Your task to perform on an android device: see sites visited before in the chrome app Image 0: 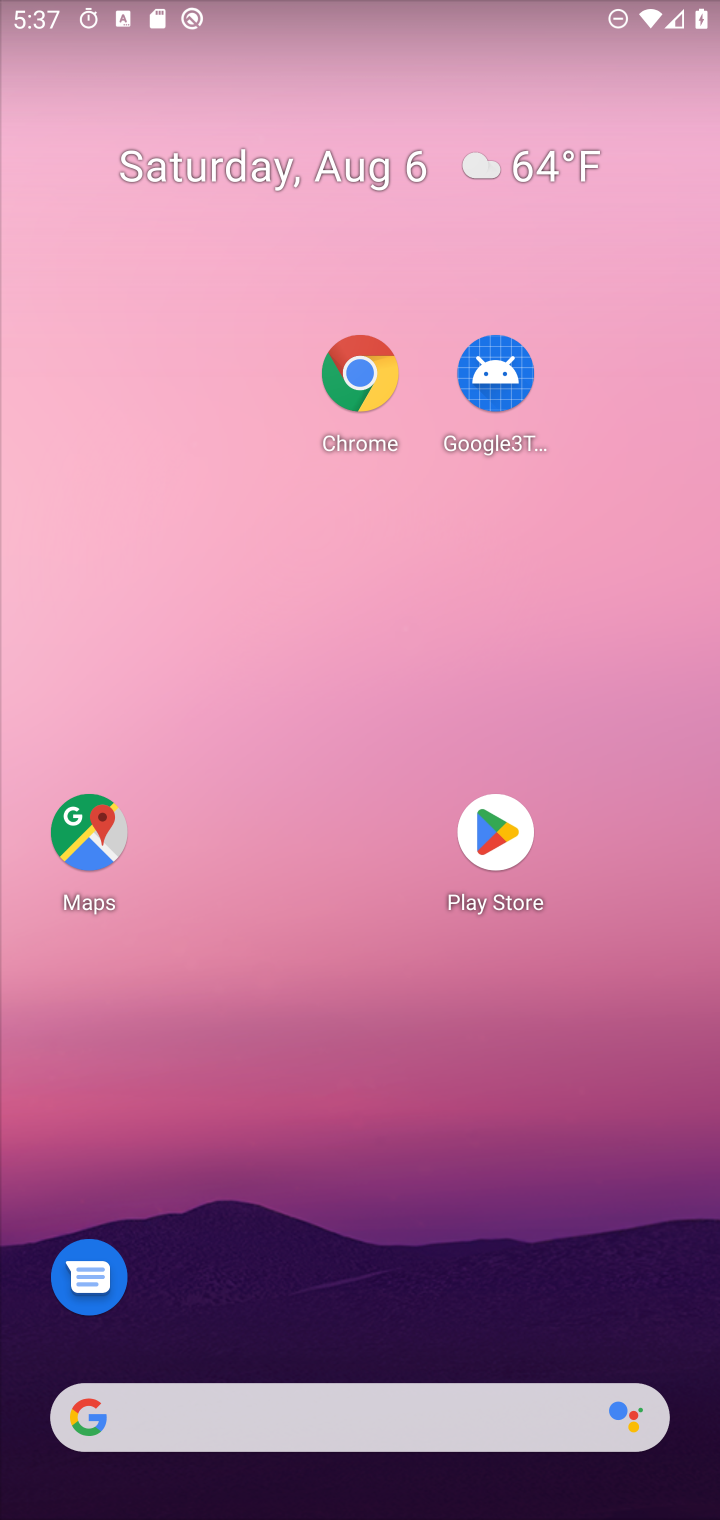
Step 0: drag from (407, 1416) to (317, 273)
Your task to perform on an android device: see sites visited before in the chrome app Image 1: 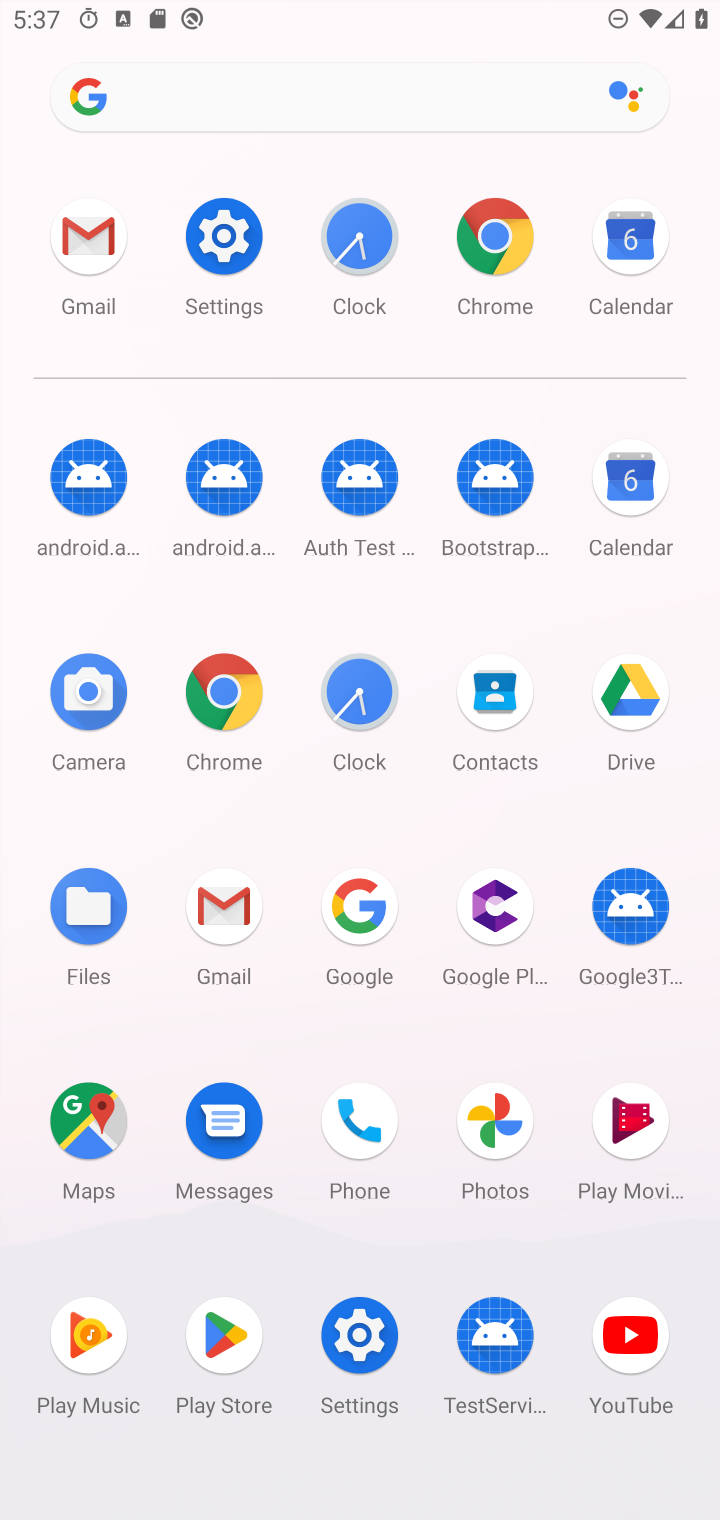
Step 1: click (216, 693)
Your task to perform on an android device: see sites visited before in the chrome app Image 2: 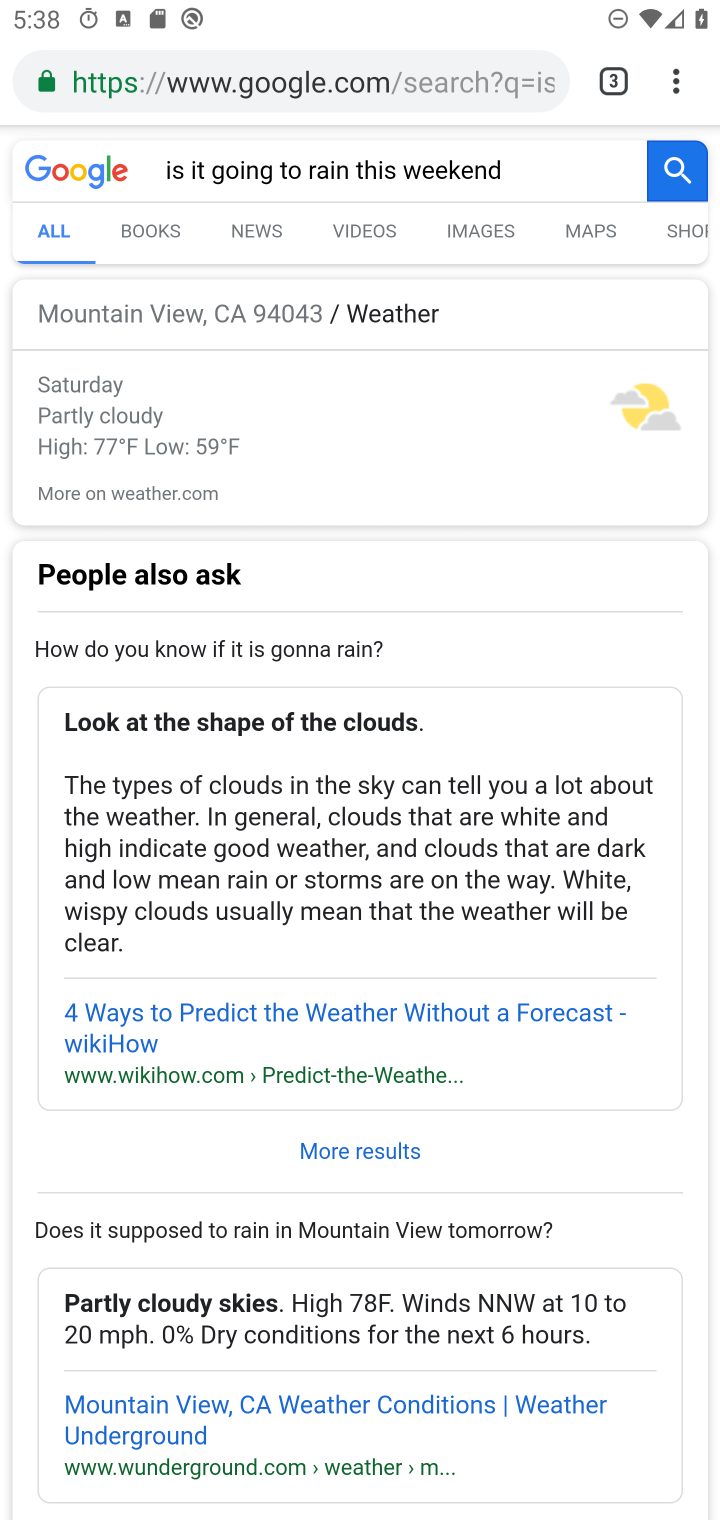
Step 2: click (670, 72)
Your task to perform on an android device: see sites visited before in the chrome app Image 3: 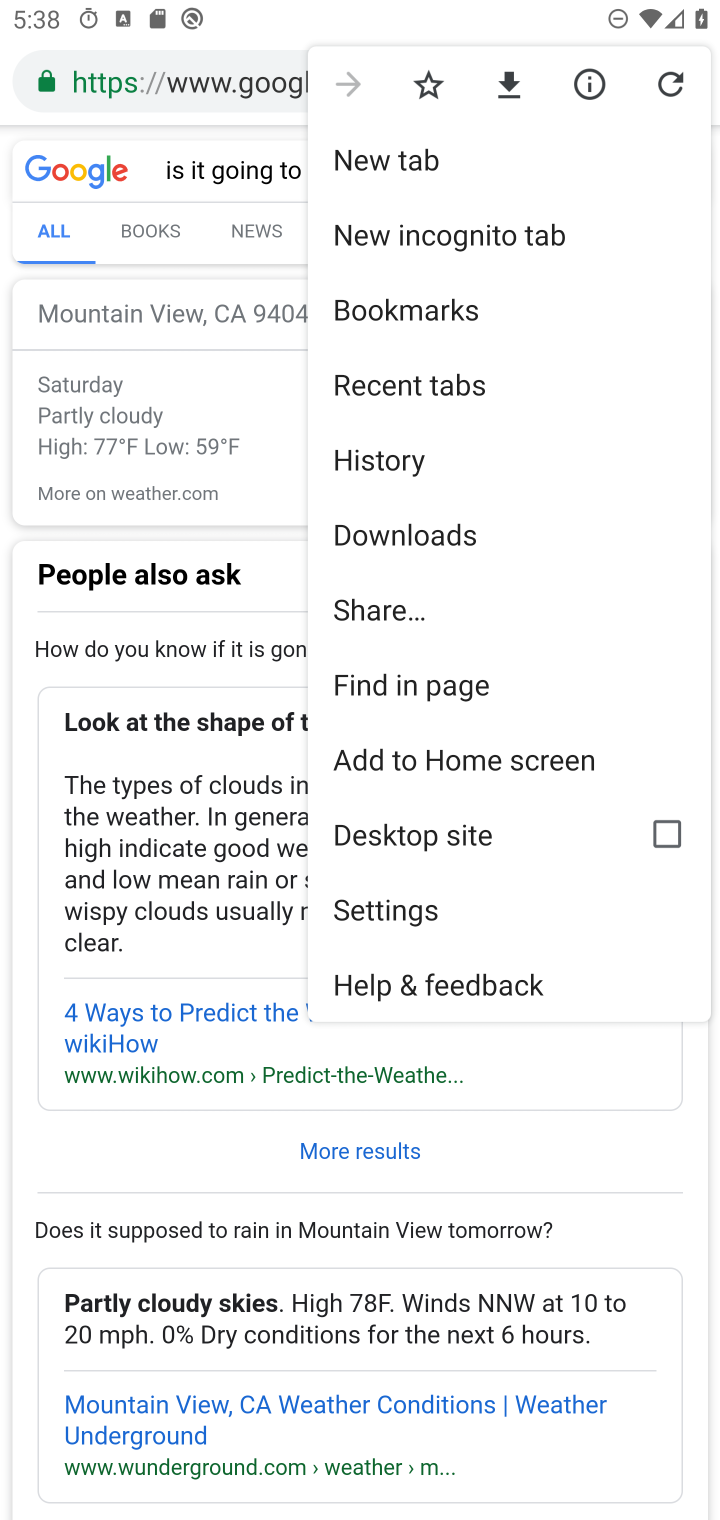
Step 3: click (431, 384)
Your task to perform on an android device: see sites visited before in the chrome app Image 4: 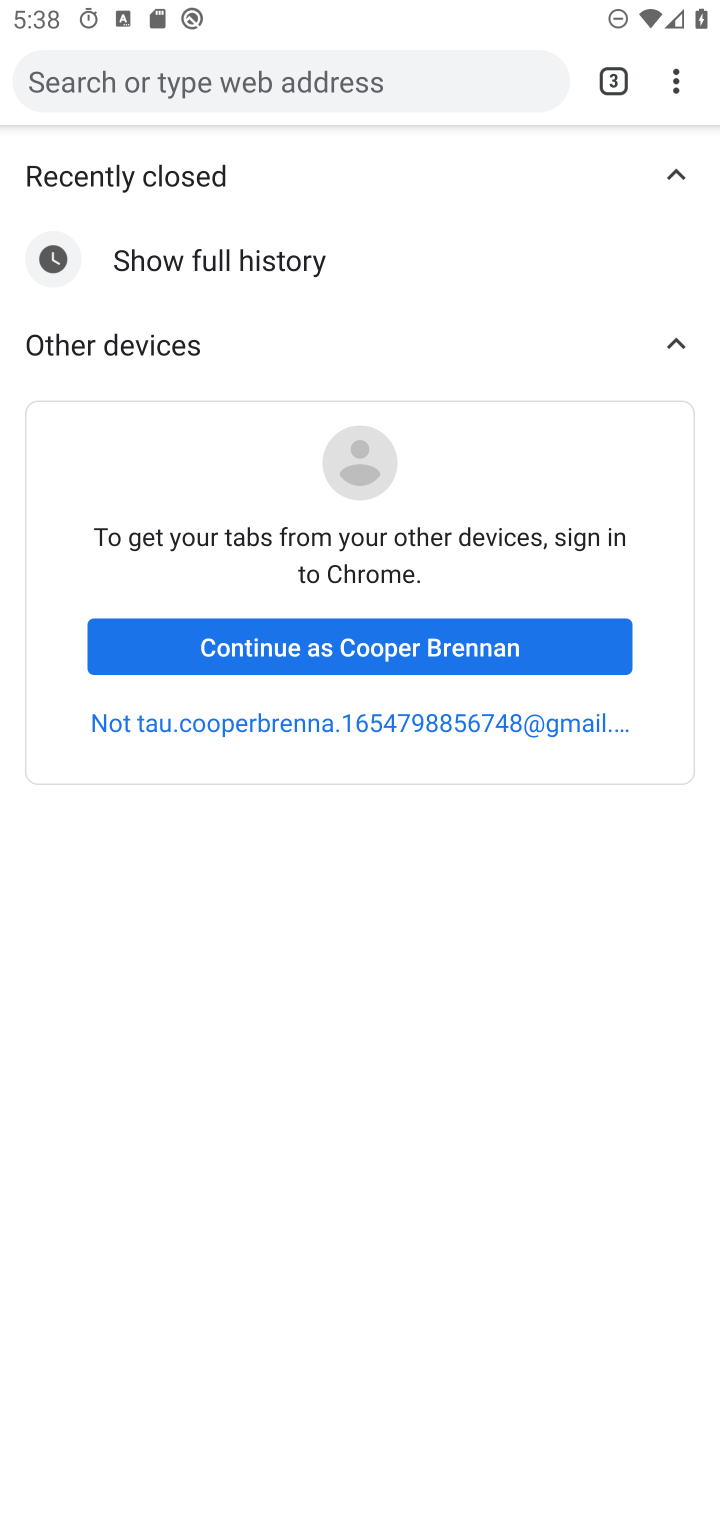
Step 4: task complete